Your task to perform on an android device: show emergency info Image 0: 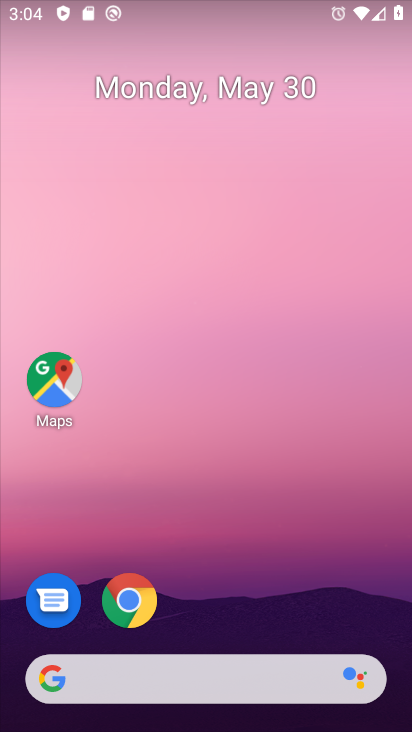
Step 0: drag from (216, 720) to (207, 111)
Your task to perform on an android device: show emergency info Image 1: 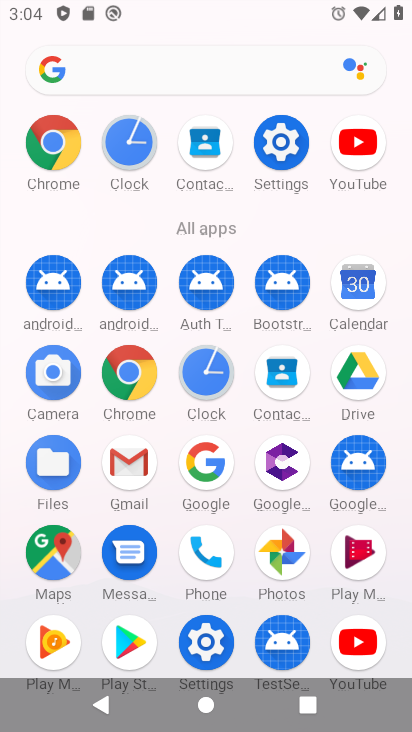
Step 1: click (289, 136)
Your task to perform on an android device: show emergency info Image 2: 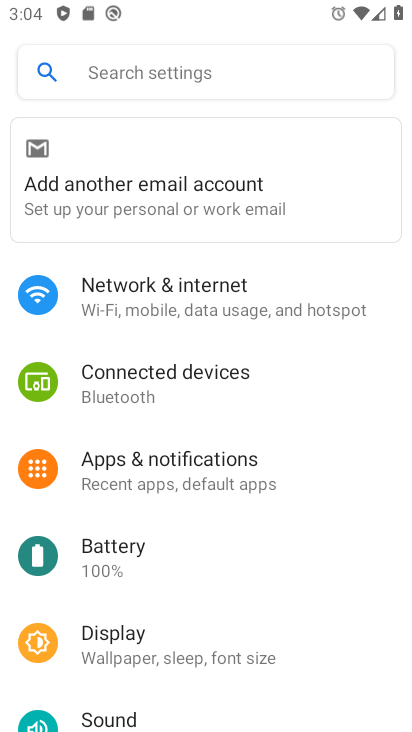
Step 2: drag from (191, 667) to (188, 287)
Your task to perform on an android device: show emergency info Image 3: 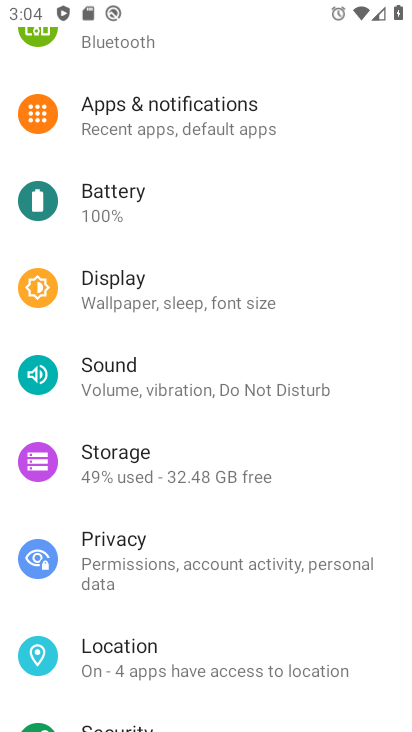
Step 3: drag from (184, 674) to (188, 288)
Your task to perform on an android device: show emergency info Image 4: 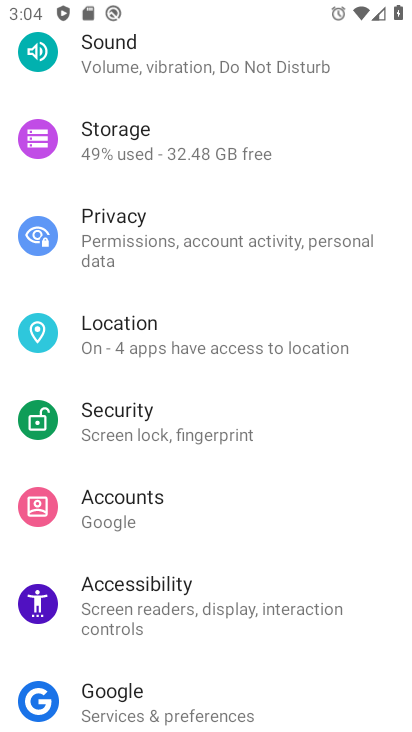
Step 4: drag from (178, 698) to (187, 268)
Your task to perform on an android device: show emergency info Image 5: 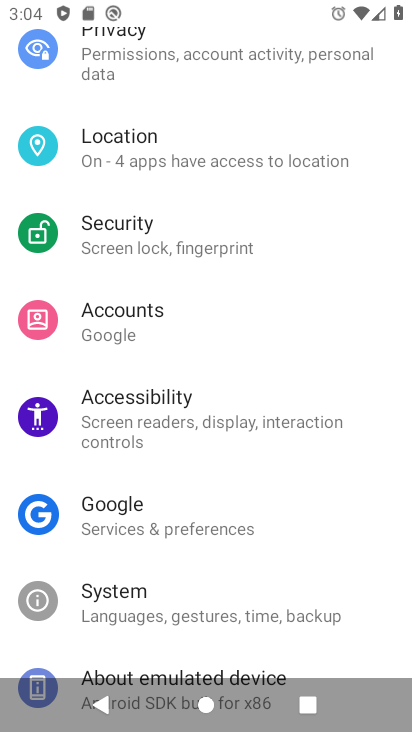
Step 5: drag from (200, 621) to (222, 195)
Your task to perform on an android device: show emergency info Image 6: 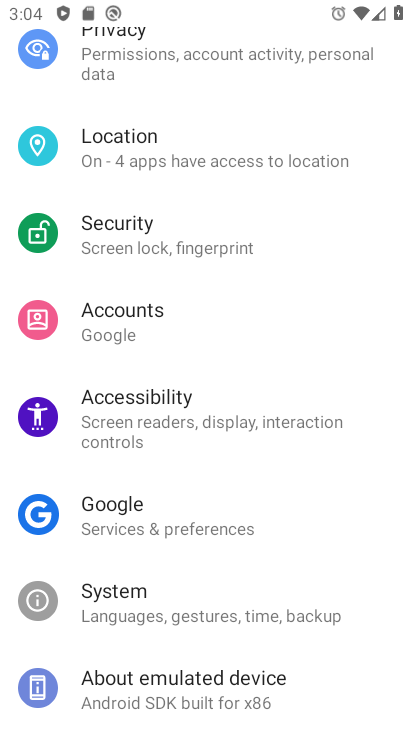
Step 6: click (187, 701)
Your task to perform on an android device: show emergency info Image 7: 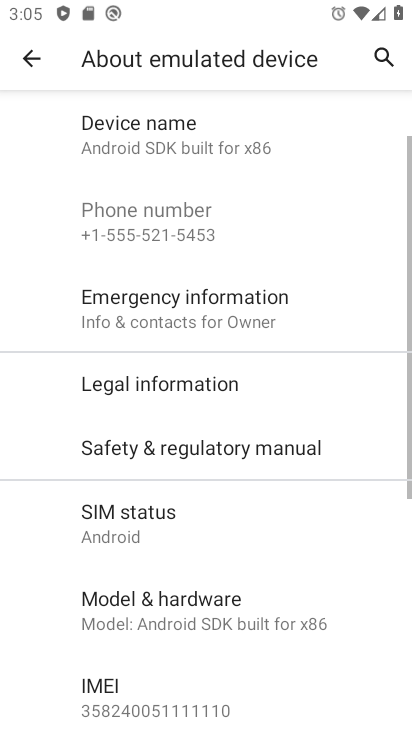
Step 7: click (187, 304)
Your task to perform on an android device: show emergency info Image 8: 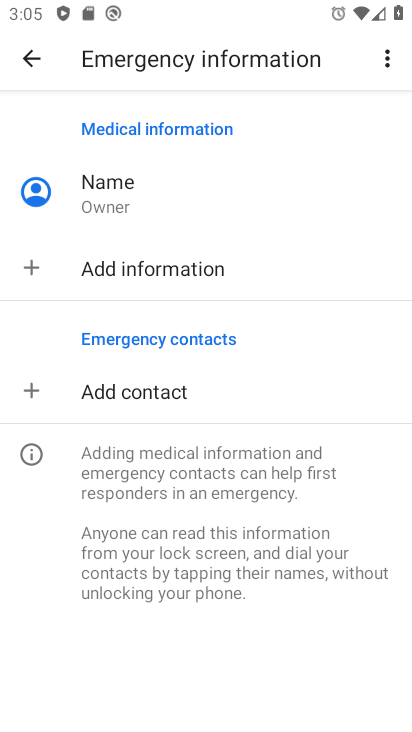
Step 8: task complete